Your task to perform on an android device: Go to location settings Image 0: 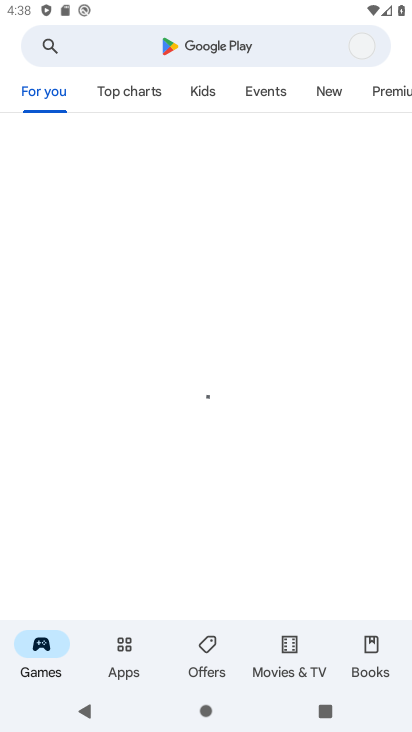
Step 0: press home button
Your task to perform on an android device: Go to location settings Image 1: 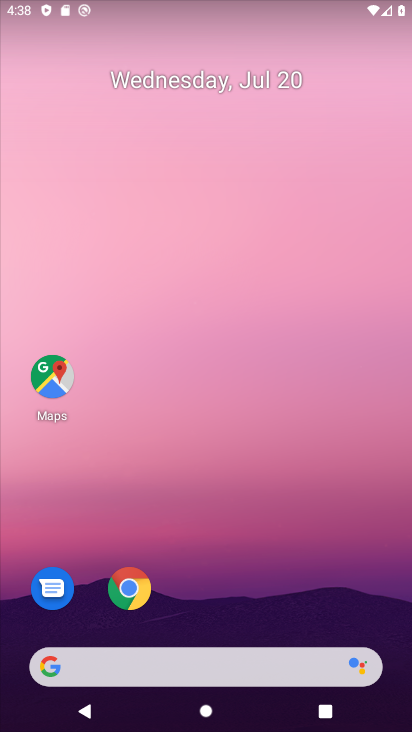
Step 1: drag from (261, 596) to (242, 81)
Your task to perform on an android device: Go to location settings Image 2: 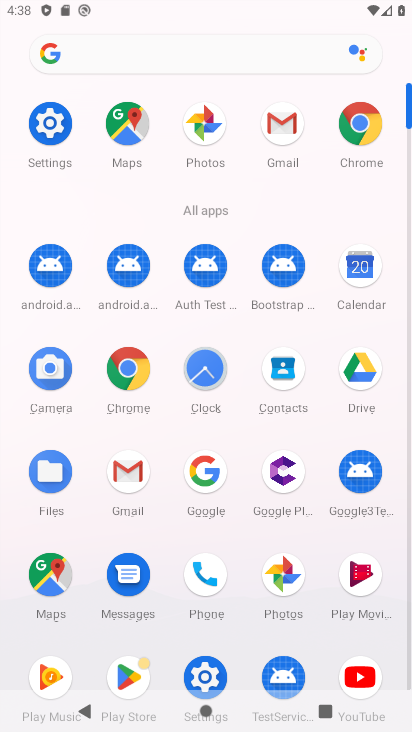
Step 2: click (50, 124)
Your task to perform on an android device: Go to location settings Image 3: 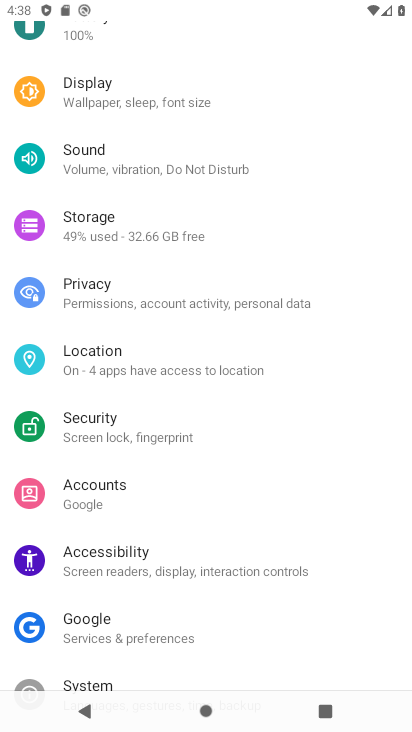
Step 3: click (115, 351)
Your task to perform on an android device: Go to location settings Image 4: 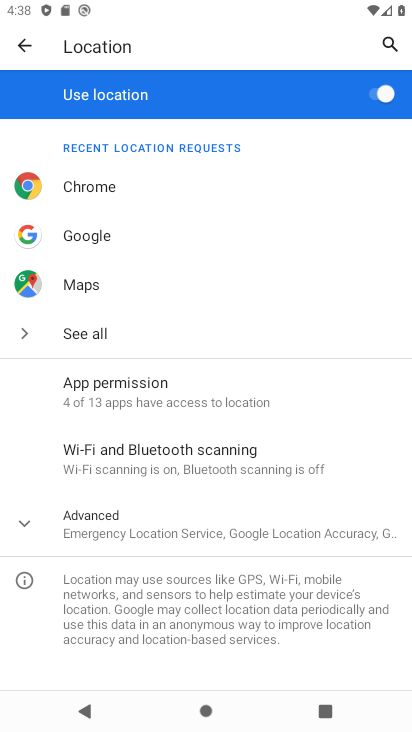
Step 4: task complete